Your task to perform on an android device: Show me productivity apps on the Play Store Image 0: 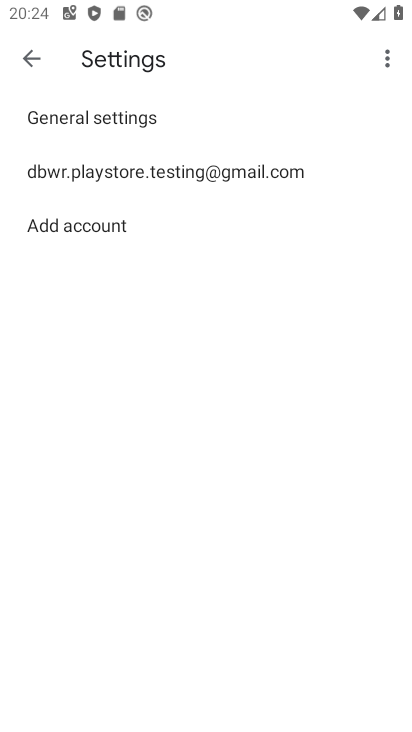
Step 0: press home button
Your task to perform on an android device: Show me productivity apps on the Play Store Image 1: 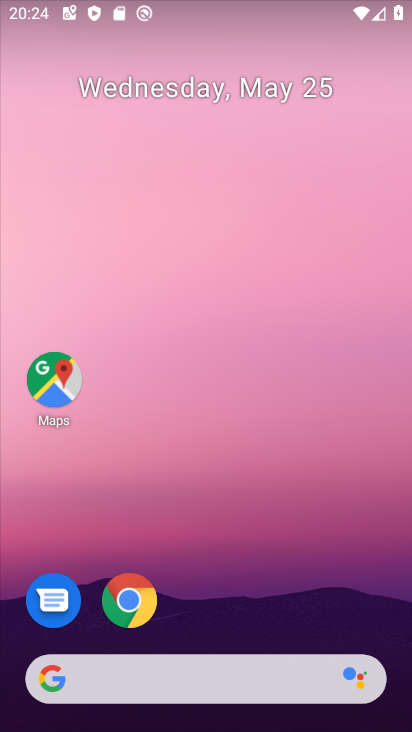
Step 1: drag from (326, 576) to (288, 143)
Your task to perform on an android device: Show me productivity apps on the Play Store Image 2: 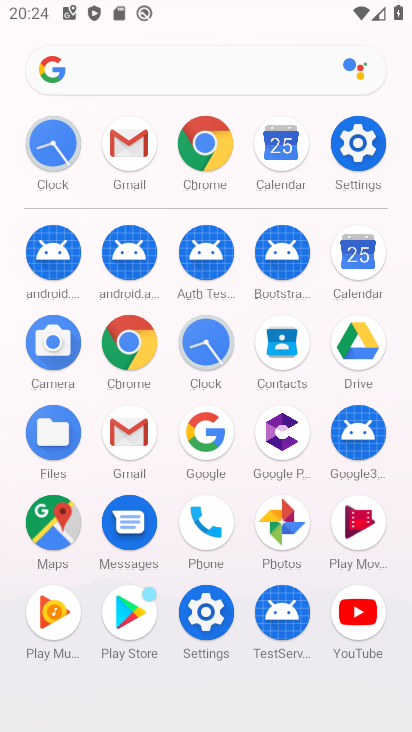
Step 2: click (126, 611)
Your task to perform on an android device: Show me productivity apps on the Play Store Image 3: 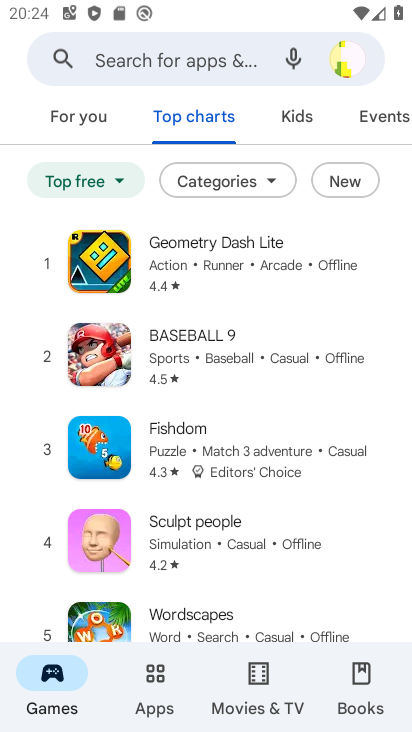
Step 3: click (156, 685)
Your task to perform on an android device: Show me productivity apps on the Play Store Image 4: 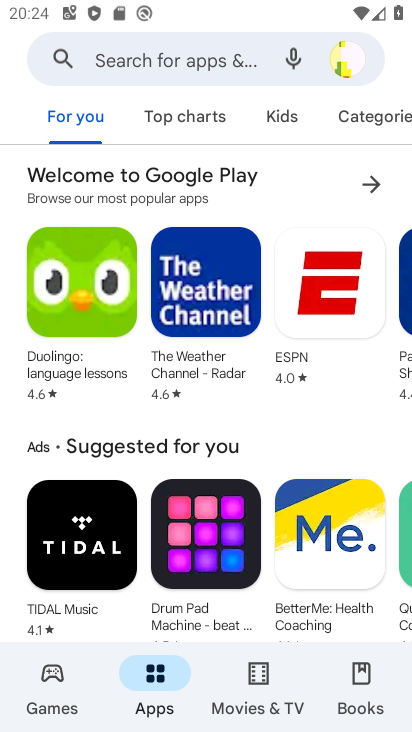
Step 4: click (370, 121)
Your task to perform on an android device: Show me productivity apps on the Play Store Image 5: 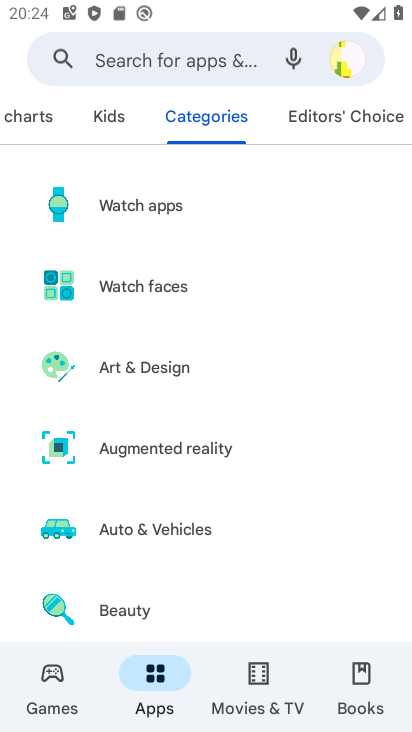
Step 5: drag from (342, 570) to (298, 240)
Your task to perform on an android device: Show me productivity apps on the Play Store Image 6: 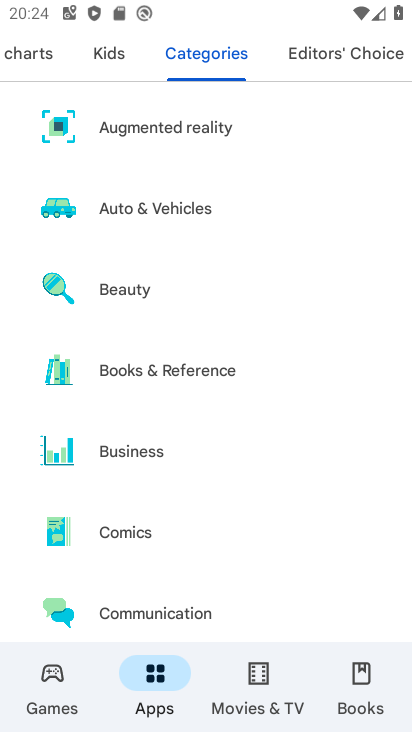
Step 6: drag from (292, 568) to (285, 275)
Your task to perform on an android device: Show me productivity apps on the Play Store Image 7: 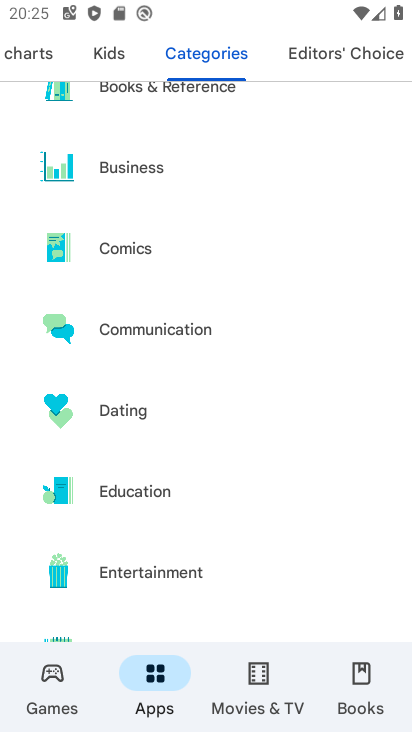
Step 7: drag from (285, 579) to (233, 233)
Your task to perform on an android device: Show me productivity apps on the Play Store Image 8: 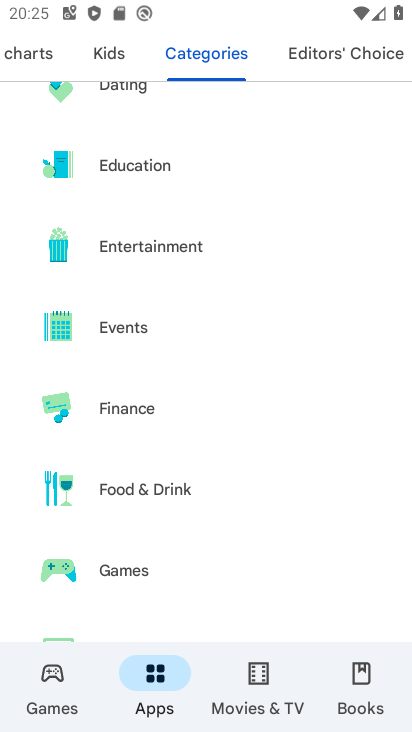
Step 8: drag from (281, 578) to (292, 165)
Your task to perform on an android device: Show me productivity apps on the Play Store Image 9: 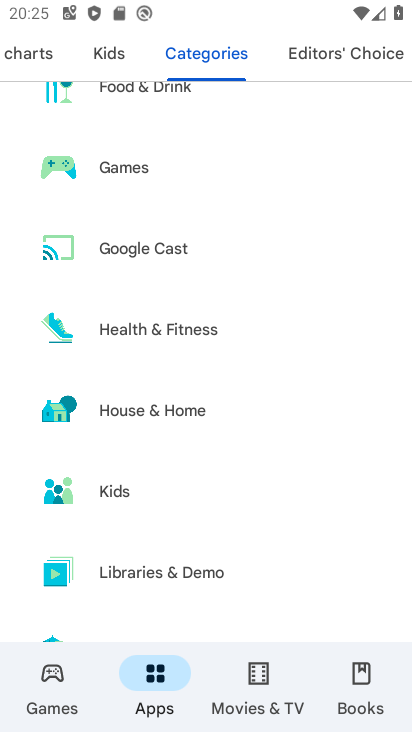
Step 9: drag from (258, 601) to (286, 272)
Your task to perform on an android device: Show me productivity apps on the Play Store Image 10: 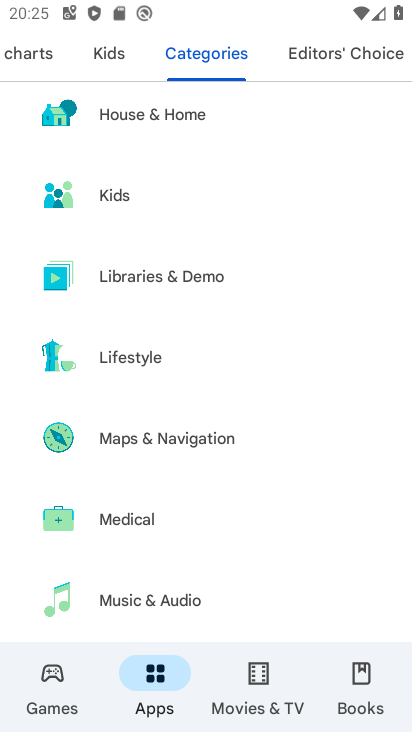
Step 10: drag from (286, 581) to (290, 197)
Your task to perform on an android device: Show me productivity apps on the Play Store Image 11: 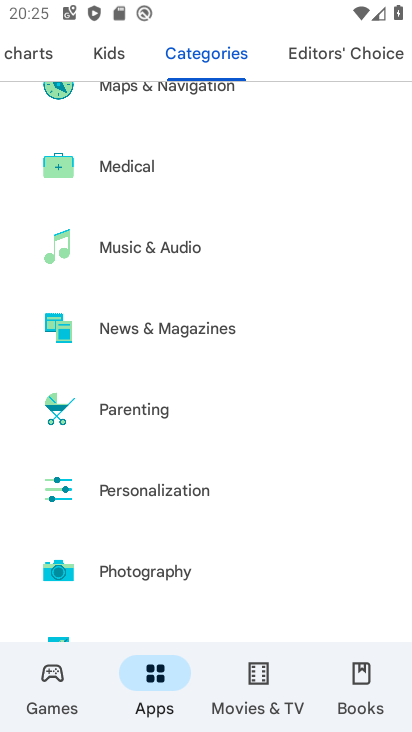
Step 11: drag from (265, 612) to (259, 135)
Your task to perform on an android device: Show me productivity apps on the Play Store Image 12: 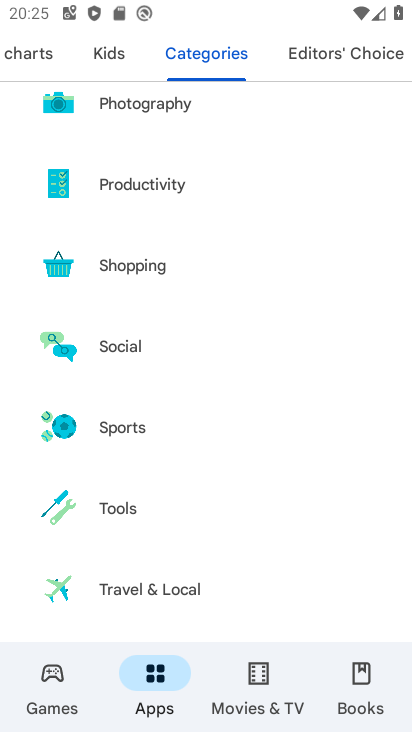
Step 12: click (171, 205)
Your task to perform on an android device: Show me productivity apps on the Play Store Image 13: 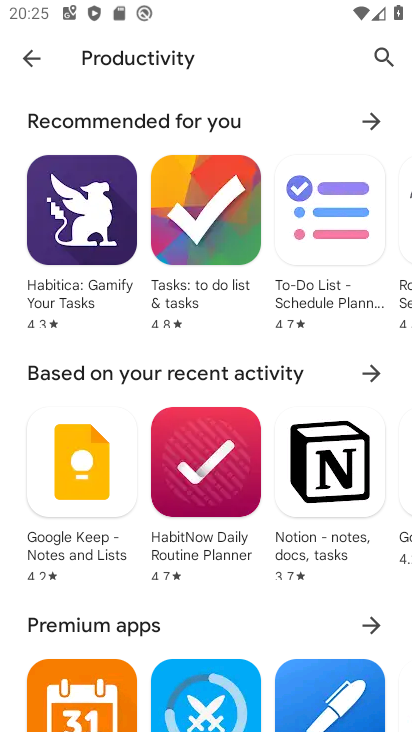
Step 13: click (184, 183)
Your task to perform on an android device: Show me productivity apps on the Play Store Image 14: 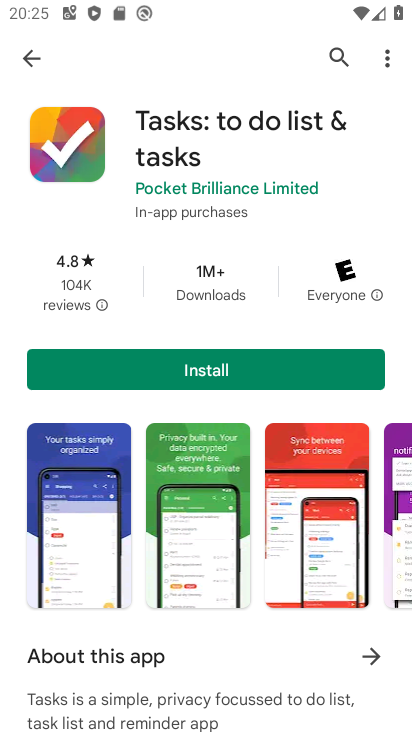
Step 14: task complete